Your task to perform on an android device: Open notification settings Image 0: 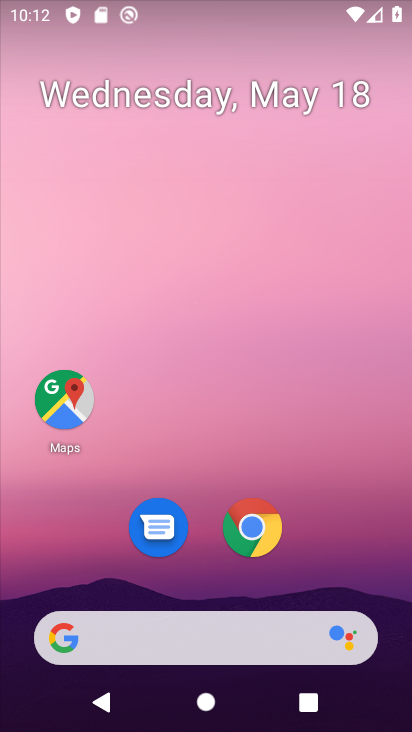
Step 0: drag from (349, 558) to (306, 103)
Your task to perform on an android device: Open notification settings Image 1: 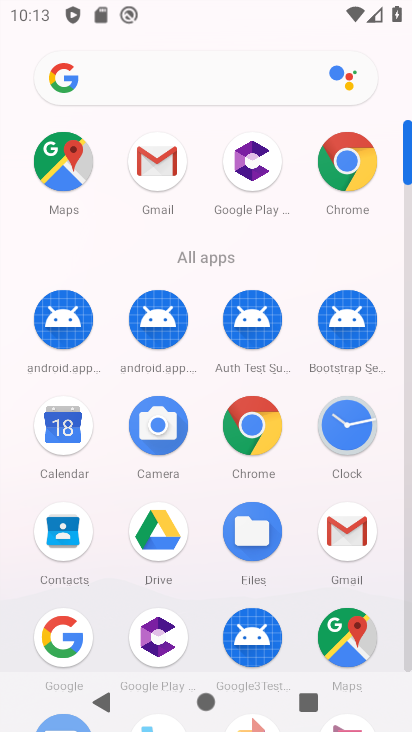
Step 1: drag from (406, 172) to (411, 665)
Your task to perform on an android device: Open notification settings Image 2: 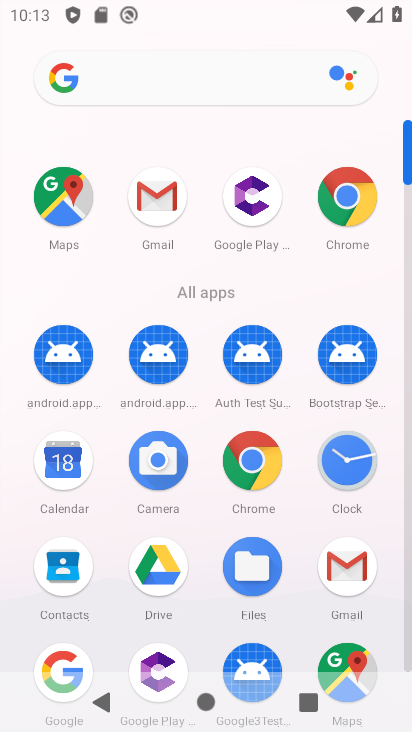
Step 2: click (406, 661)
Your task to perform on an android device: Open notification settings Image 3: 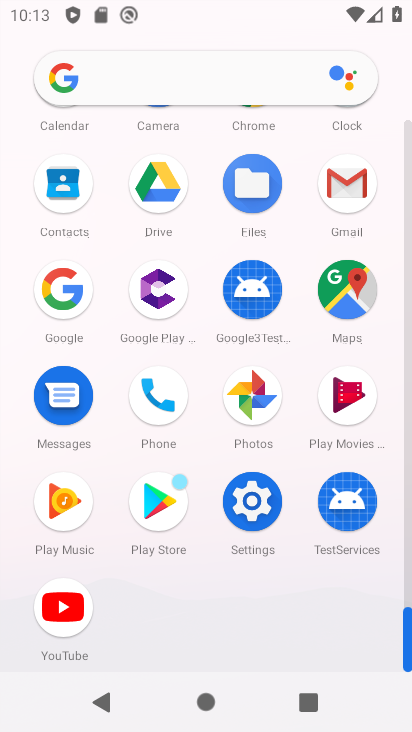
Step 3: click (255, 506)
Your task to perform on an android device: Open notification settings Image 4: 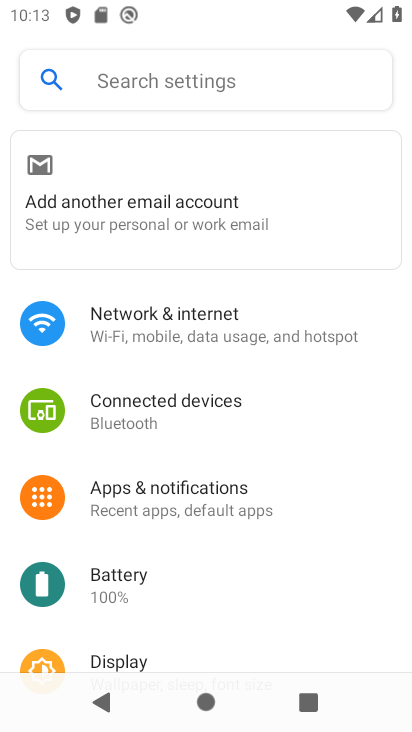
Step 4: click (215, 303)
Your task to perform on an android device: Open notification settings Image 5: 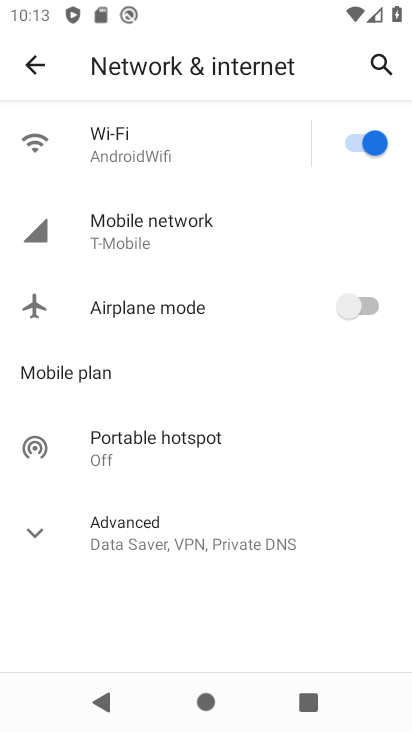
Step 5: click (54, 59)
Your task to perform on an android device: Open notification settings Image 6: 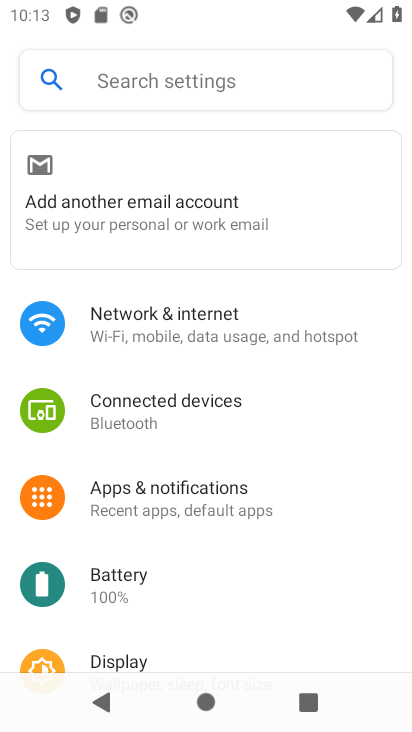
Step 6: click (202, 538)
Your task to perform on an android device: Open notification settings Image 7: 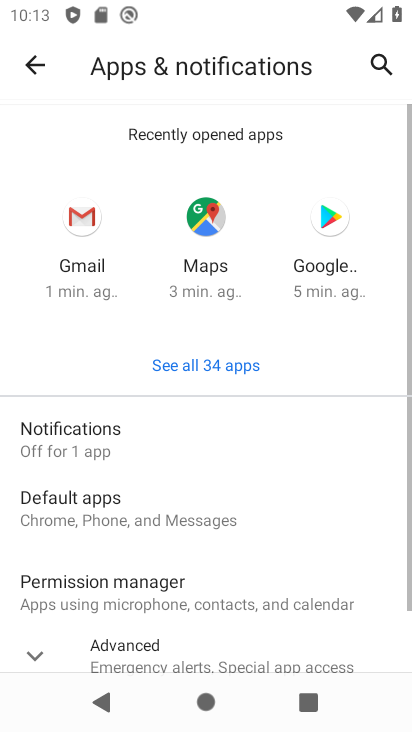
Step 7: task complete